Your task to perform on an android device: Show me the alarms in the clock app Image 0: 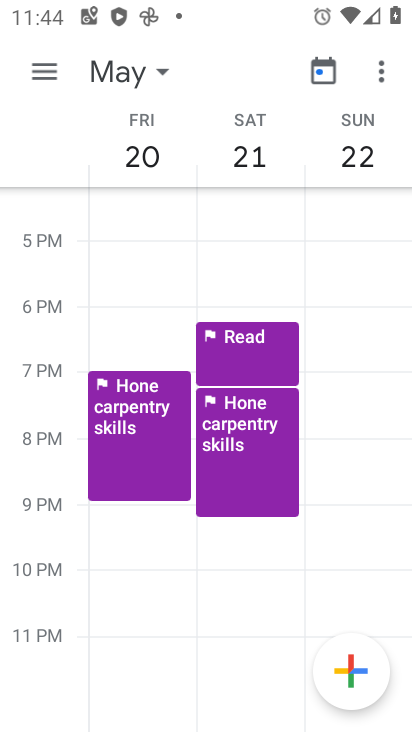
Step 0: press home button
Your task to perform on an android device: Show me the alarms in the clock app Image 1: 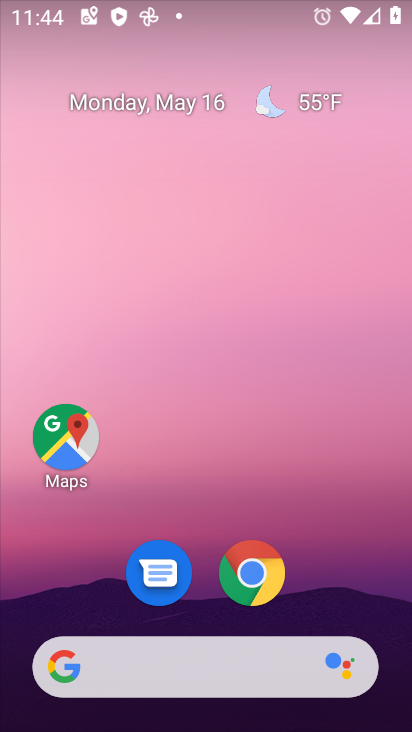
Step 1: drag from (302, 534) to (239, 91)
Your task to perform on an android device: Show me the alarms in the clock app Image 2: 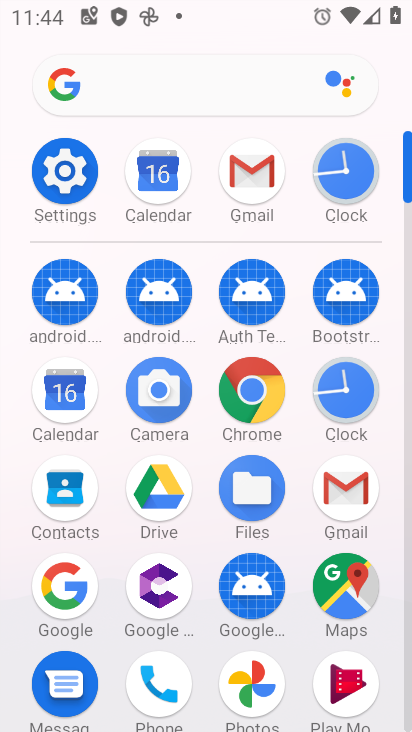
Step 2: click (324, 403)
Your task to perform on an android device: Show me the alarms in the clock app Image 3: 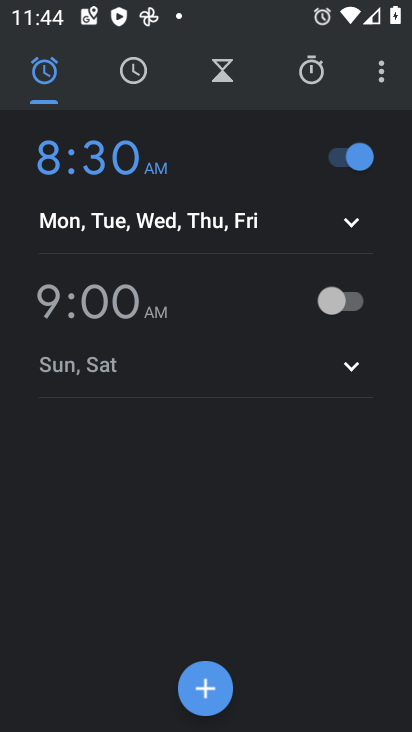
Step 3: task complete